Your task to perform on an android device: empty trash in the gmail app Image 0: 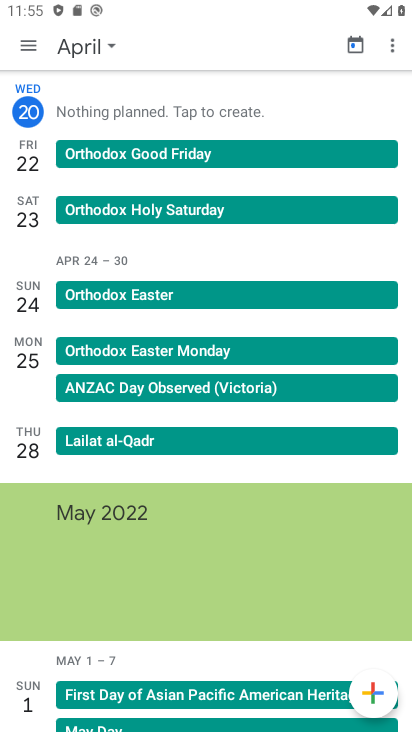
Step 0: press home button
Your task to perform on an android device: empty trash in the gmail app Image 1: 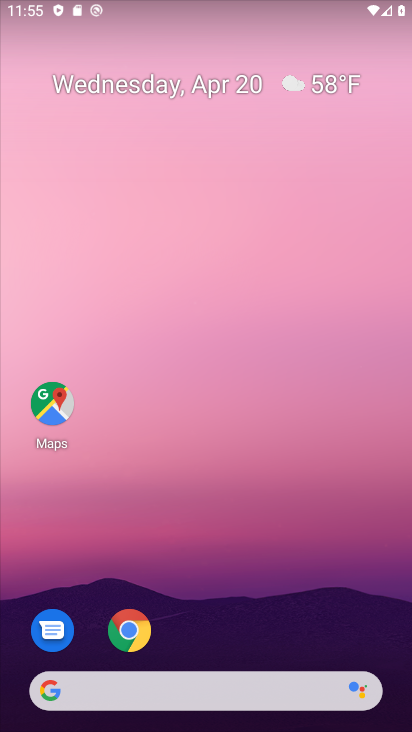
Step 1: drag from (108, 622) to (95, 318)
Your task to perform on an android device: empty trash in the gmail app Image 2: 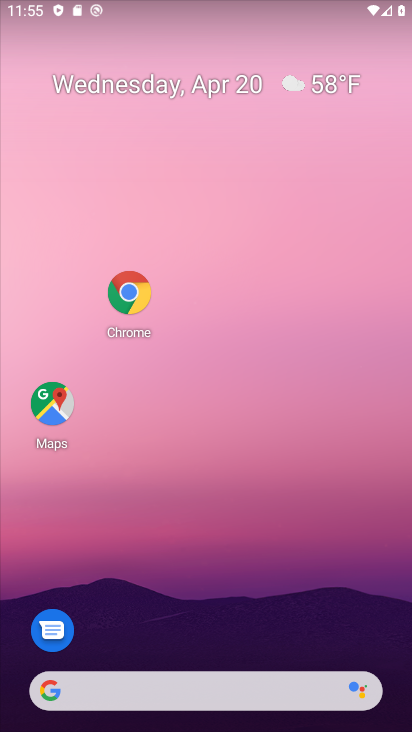
Step 2: drag from (147, 654) to (146, 262)
Your task to perform on an android device: empty trash in the gmail app Image 3: 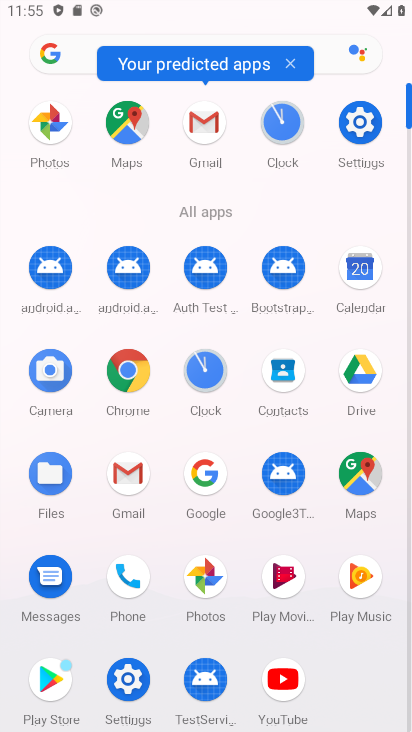
Step 3: click (188, 126)
Your task to perform on an android device: empty trash in the gmail app Image 4: 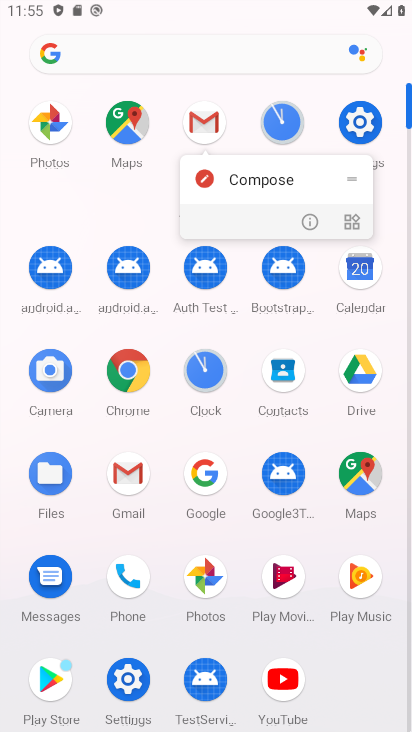
Step 4: click (203, 124)
Your task to perform on an android device: empty trash in the gmail app Image 5: 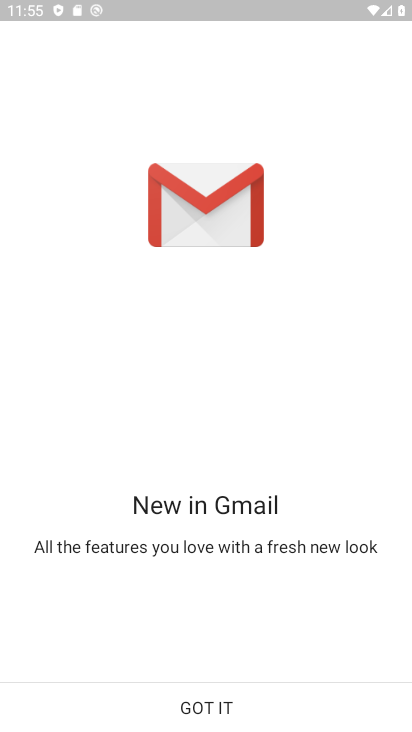
Step 5: click (187, 704)
Your task to perform on an android device: empty trash in the gmail app Image 6: 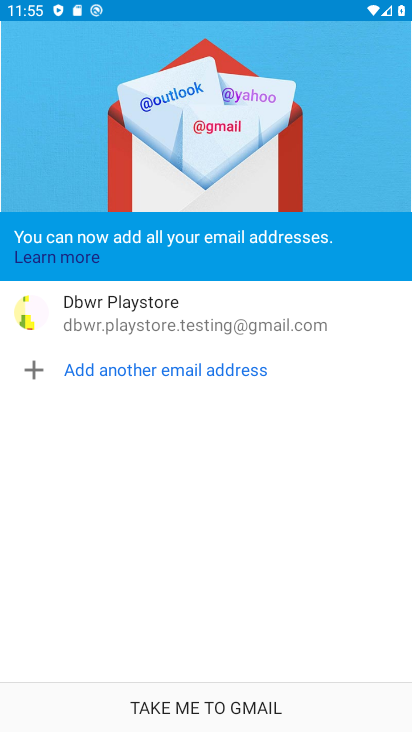
Step 6: click (156, 714)
Your task to perform on an android device: empty trash in the gmail app Image 7: 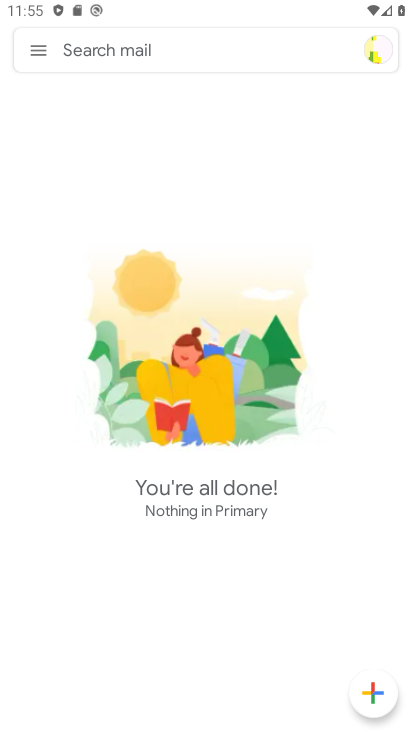
Step 7: click (44, 47)
Your task to perform on an android device: empty trash in the gmail app Image 8: 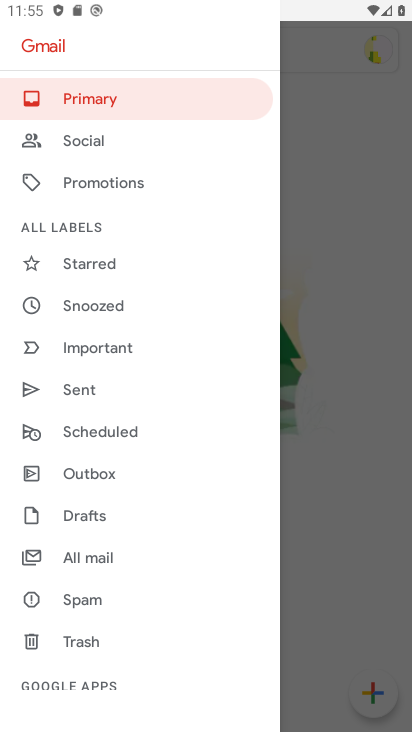
Step 8: click (73, 643)
Your task to perform on an android device: empty trash in the gmail app Image 9: 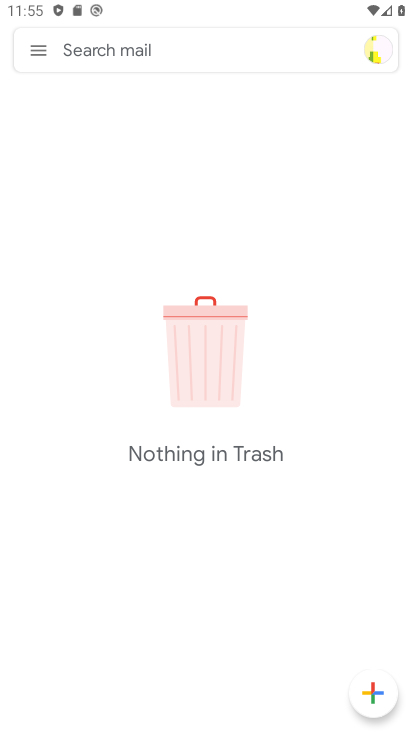
Step 9: task complete